Your task to perform on an android device: toggle sleep mode Image 0: 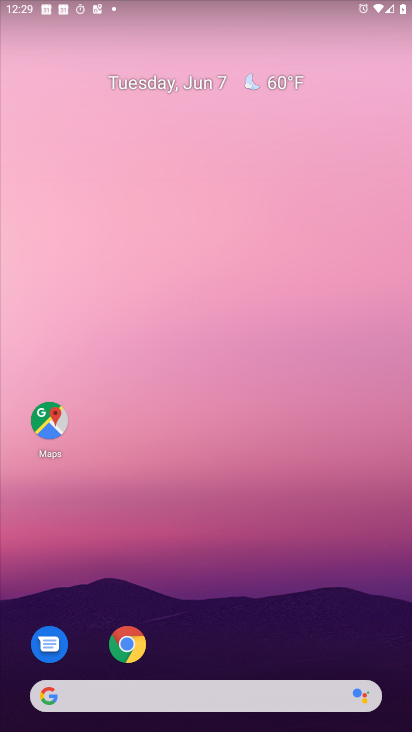
Step 0: drag from (159, 15) to (197, 544)
Your task to perform on an android device: toggle sleep mode Image 1: 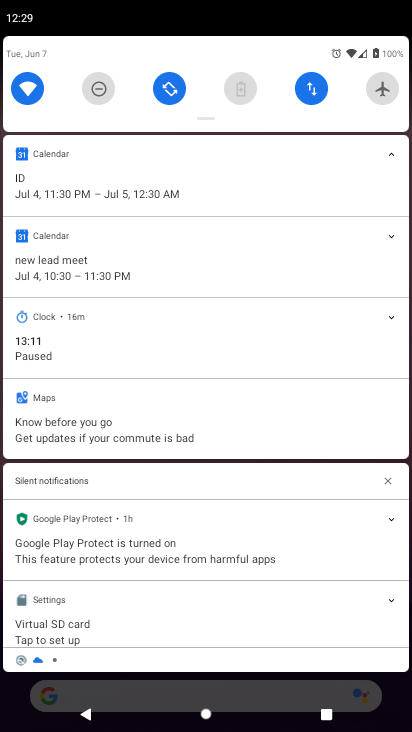
Step 1: task complete